Your task to perform on an android device: toggle notifications settings in the gmail app Image 0: 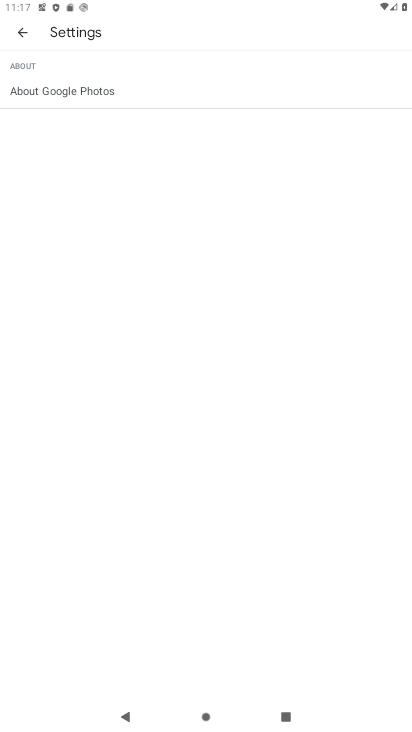
Step 0: click (20, 39)
Your task to perform on an android device: toggle notifications settings in the gmail app Image 1: 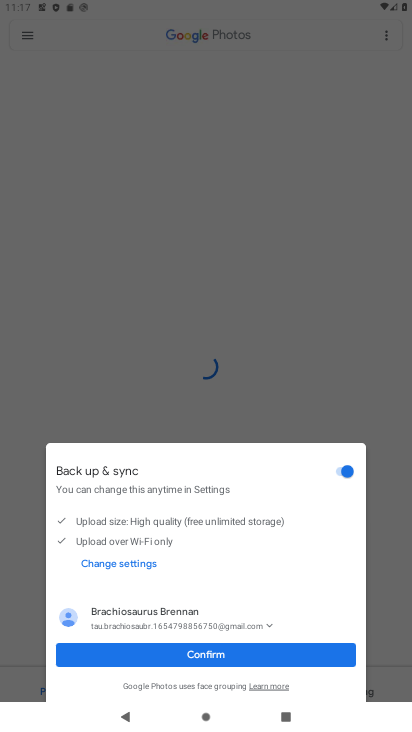
Step 1: press home button
Your task to perform on an android device: toggle notifications settings in the gmail app Image 2: 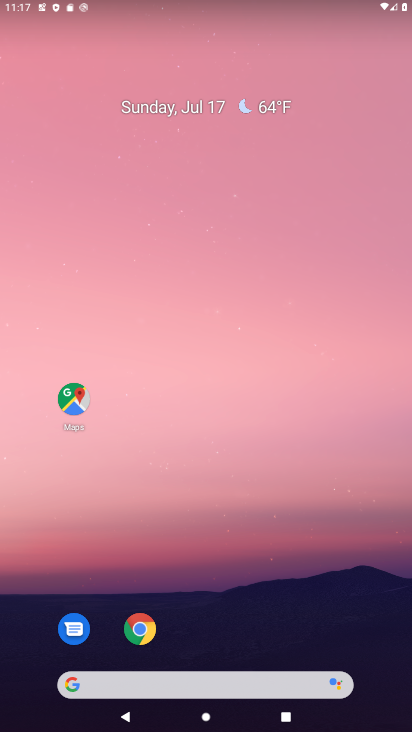
Step 2: drag from (191, 464) to (198, 190)
Your task to perform on an android device: toggle notifications settings in the gmail app Image 3: 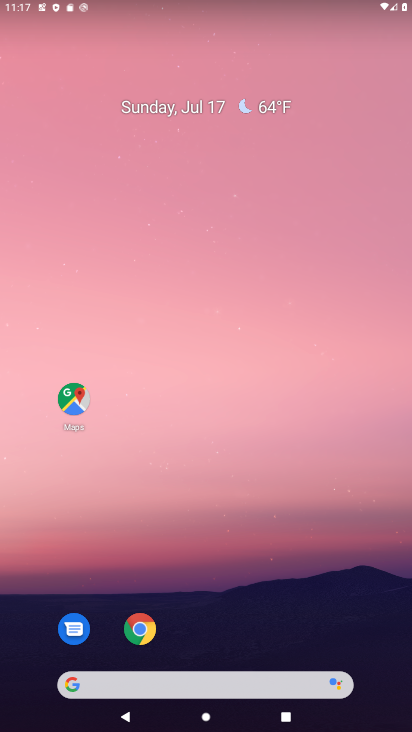
Step 3: drag from (176, 635) to (186, 177)
Your task to perform on an android device: toggle notifications settings in the gmail app Image 4: 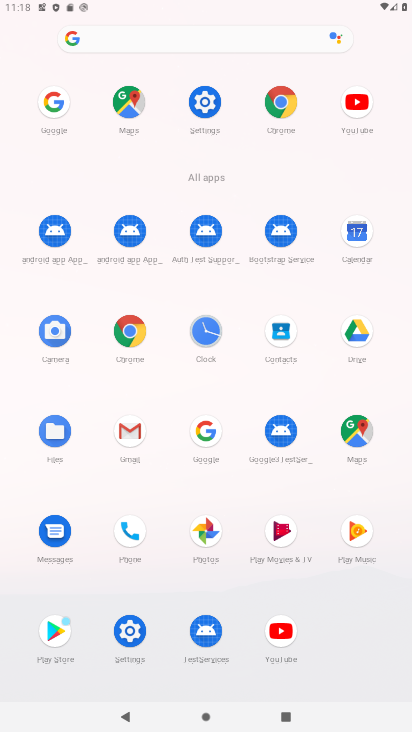
Step 4: click (140, 435)
Your task to perform on an android device: toggle notifications settings in the gmail app Image 5: 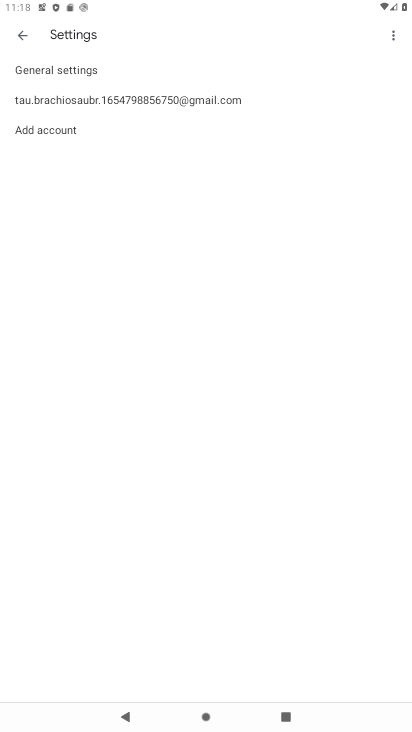
Step 5: click (89, 98)
Your task to perform on an android device: toggle notifications settings in the gmail app Image 6: 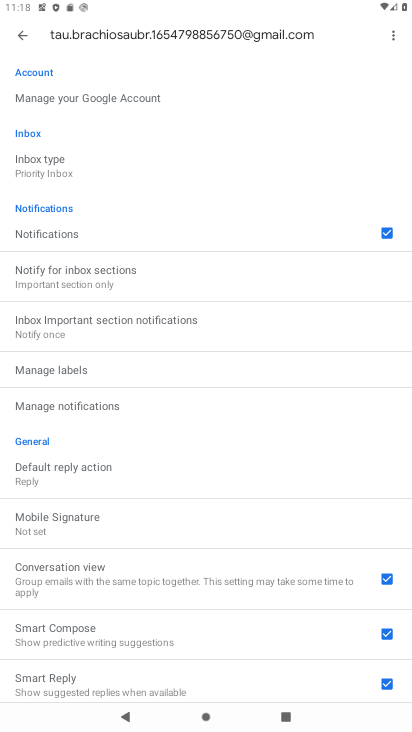
Step 6: click (82, 235)
Your task to perform on an android device: toggle notifications settings in the gmail app Image 7: 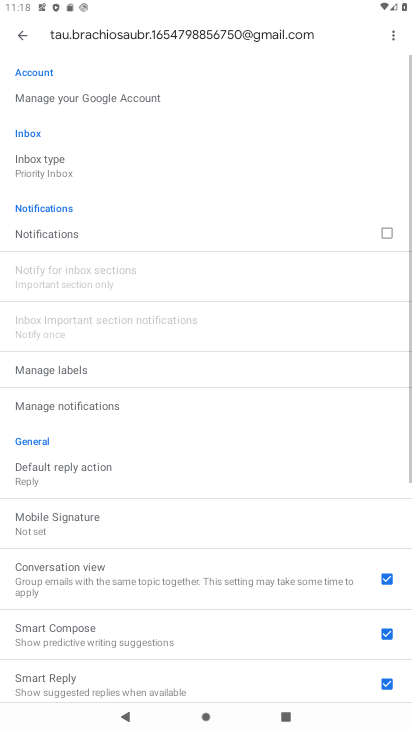
Step 7: click (105, 230)
Your task to perform on an android device: toggle notifications settings in the gmail app Image 8: 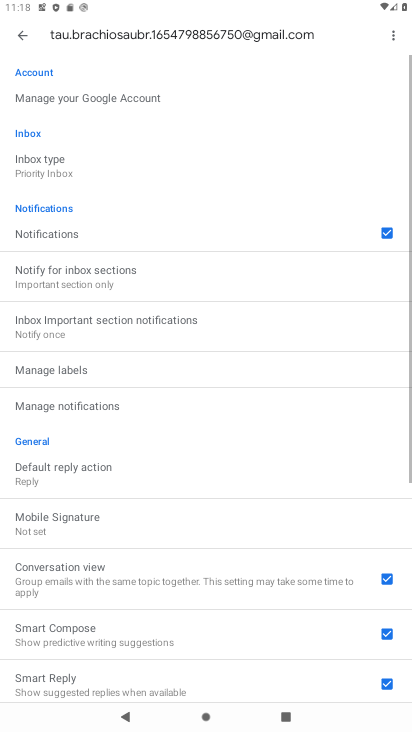
Step 8: click (105, 230)
Your task to perform on an android device: toggle notifications settings in the gmail app Image 9: 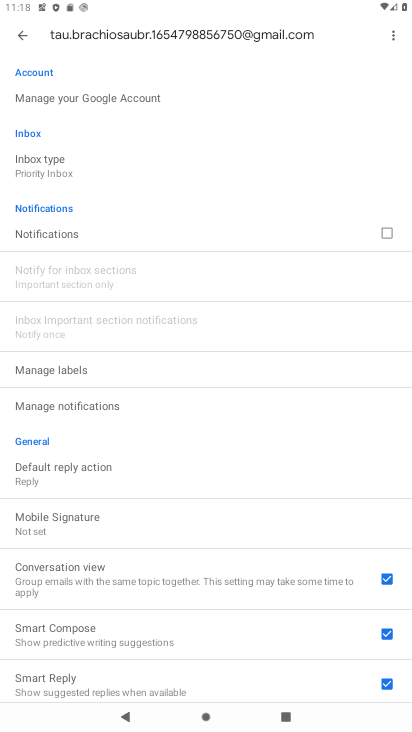
Step 9: task complete